Your task to perform on an android device: open a bookmark in the chrome app Image 0: 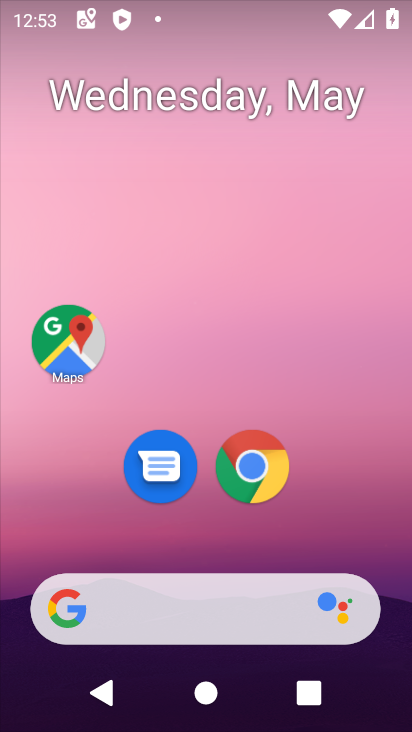
Step 0: click (248, 465)
Your task to perform on an android device: open a bookmark in the chrome app Image 1: 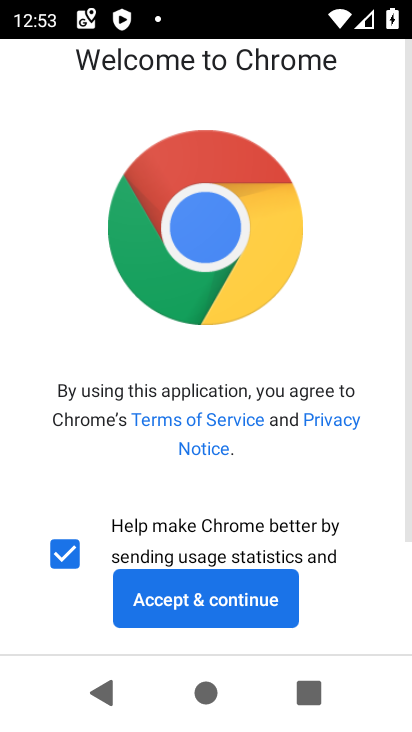
Step 1: click (211, 607)
Your task to perform on an android device: open a bookmark in the chrome app Image 2: 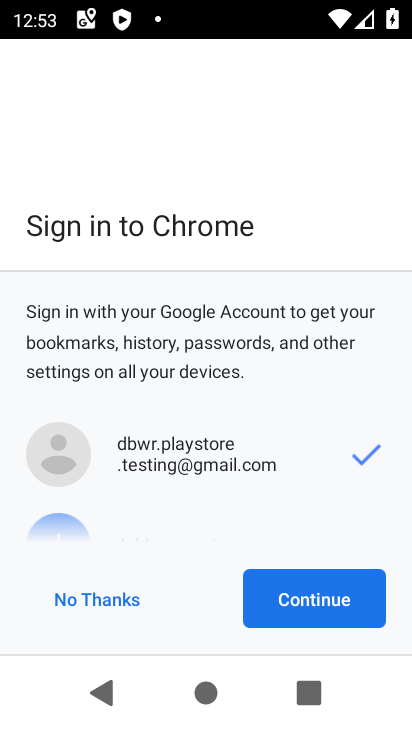
Step 2: click (306, 601)
Your task to perform on an android device: open a bookmark in the chrome app Image 3: 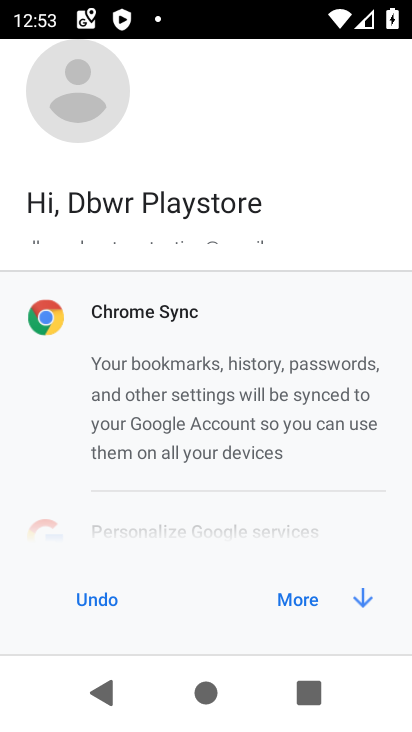
Step 3: click (306, 601)
Your task to perform on an android device: open a bookmark in the chrome app Image 4: 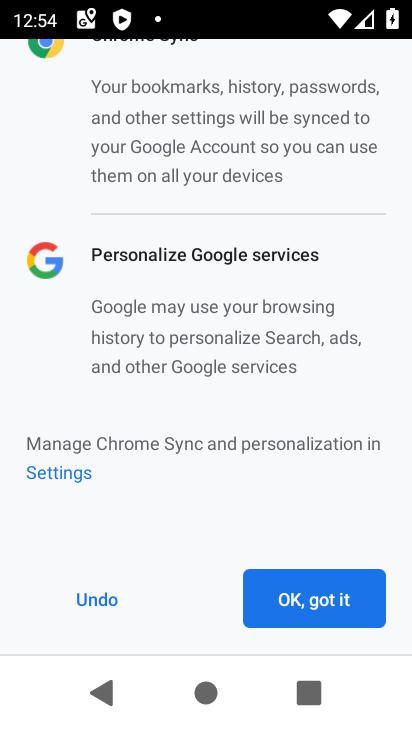
Step 4: click (306, 601)
Your task to perform on an android device: open a bookmark in the chrome app Image 5: 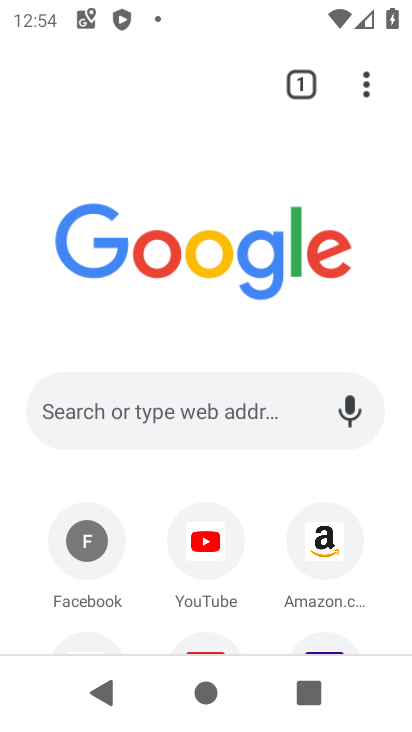
Step 5: click (360, 92)
Your task to perform on an android device: open a bookmark in the chrome app Image 6: 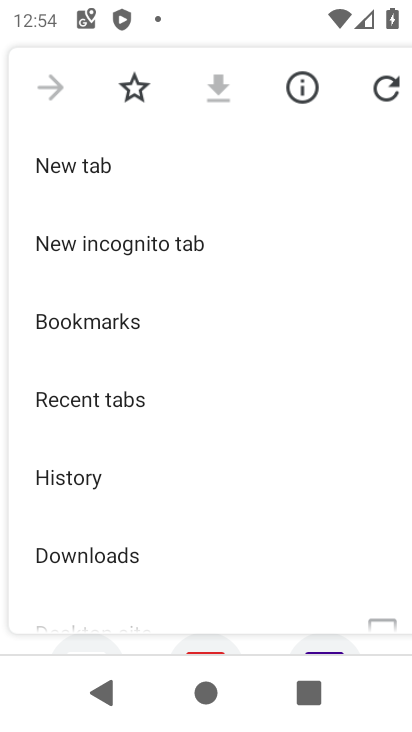
Step 6: click (123, 308)
Your task to perform on an android device: open a bookmark in the chrome app Image 7: 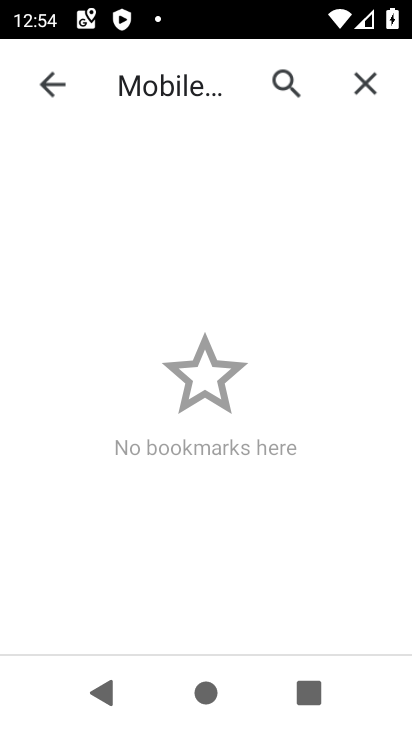
Step 7: task complete